Your task to perform on an android device: Search for seafood restaurants on Google Maps Image 0: 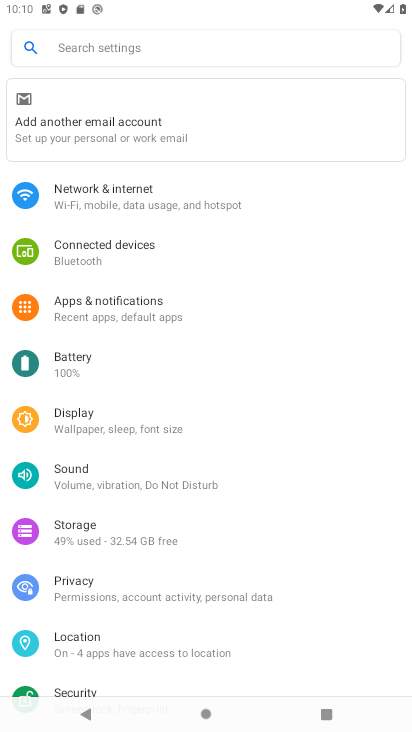
Step 0: press home button
Your task to perform on an android device: Search for seafood restaurants on Google Maps Image 1: 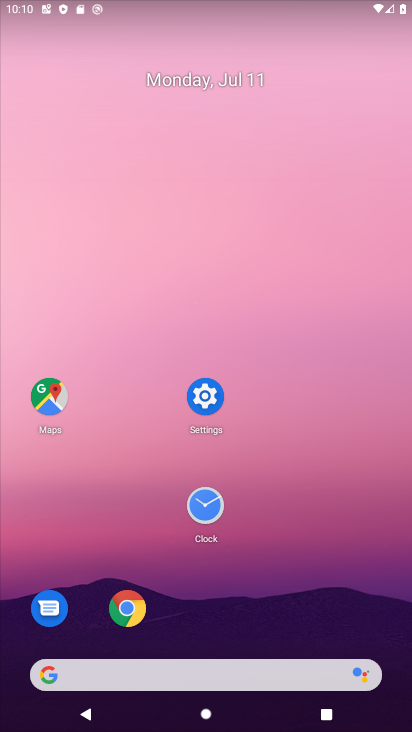
Step 1: click (56, 406)
Your task to perform on an android device: Search for seafood restaurants on Google Maps Image 2: 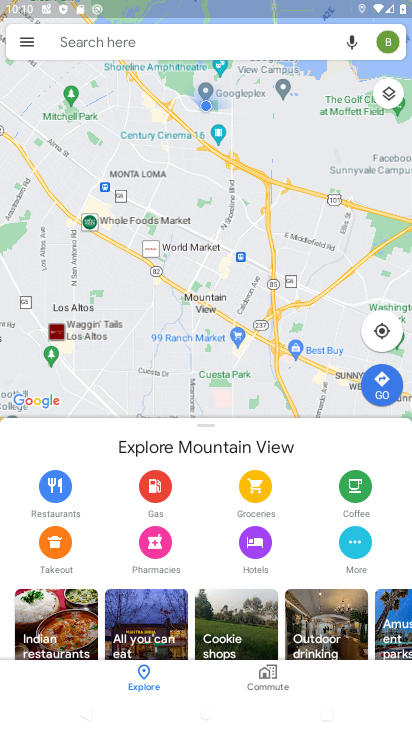
Step 2: click (119, 44)
Your task to perform on an android device: Search for seafood restaurants on Google Maps Image 3: 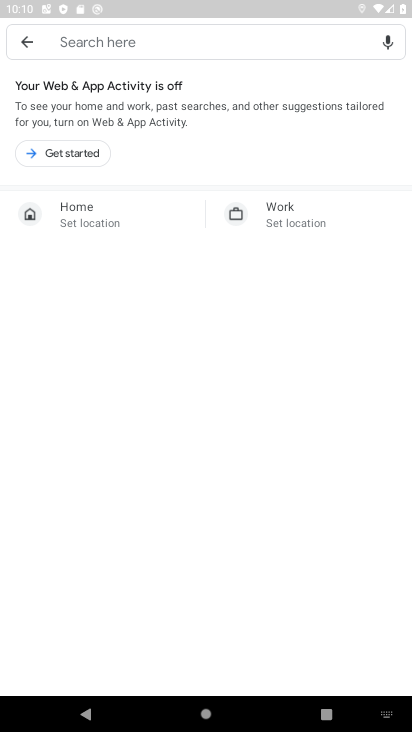
Step 3: type "seafood restaurants"
Your task to perform on an android device: Search for seafood restaurants on Google Maps Image 4: 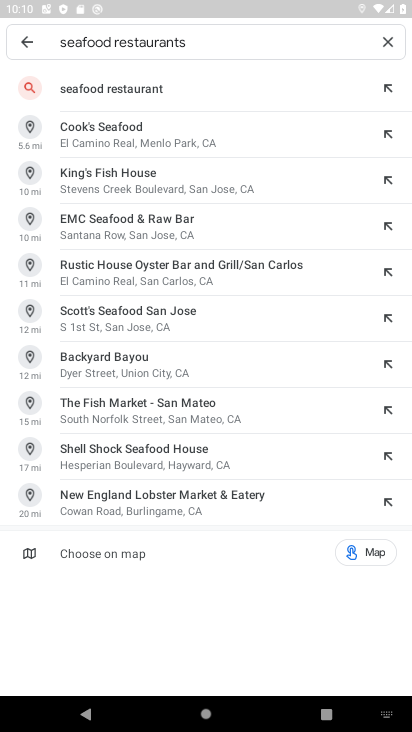
Step 4: click (142, 93)
Your task to perform on an android device: Search for seafood restaurants on Google Maps Image 5: 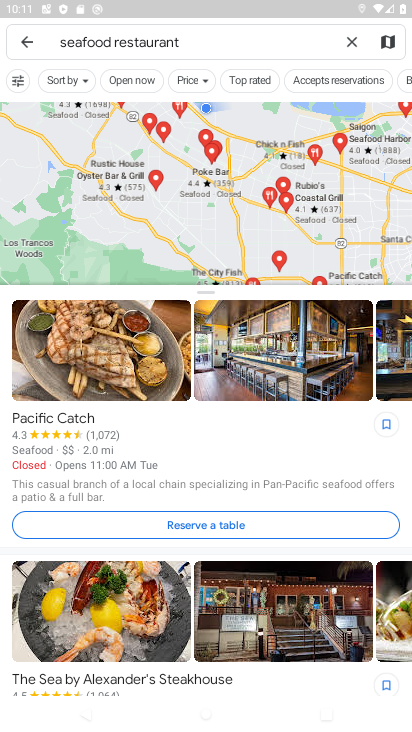
Step 5: task complete